Your task to perform on an android device: Search for sushi restaurants on Maps Image 0: 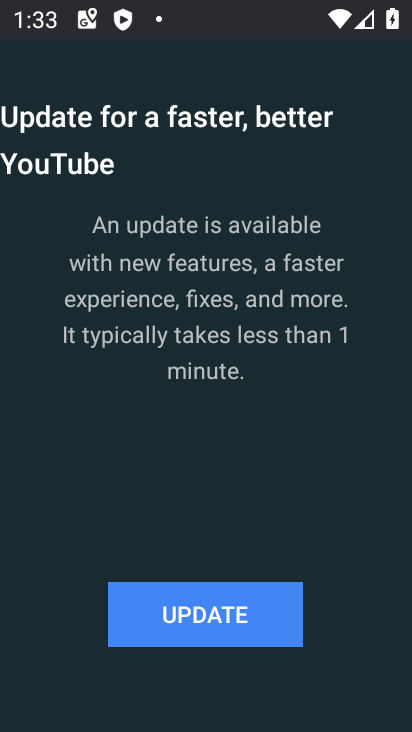
Step 0: press back button
Your task to perform on an android device: Search for sushi restaurants on Maps Image 1: 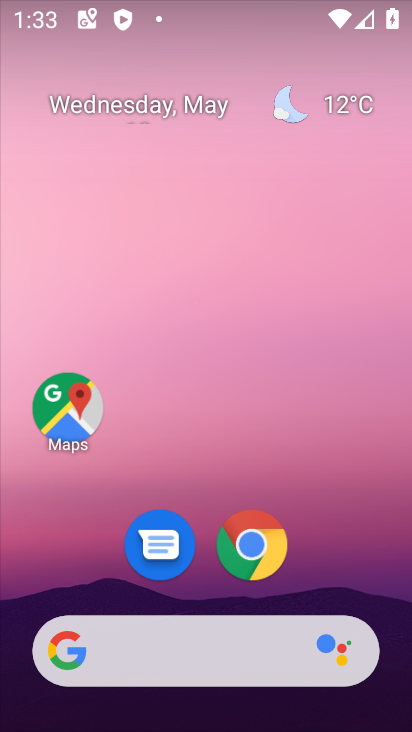
Step 1: click (87, 431)
Your task to perform on an android device: Search for sushi restaurants on Maps Image 2: 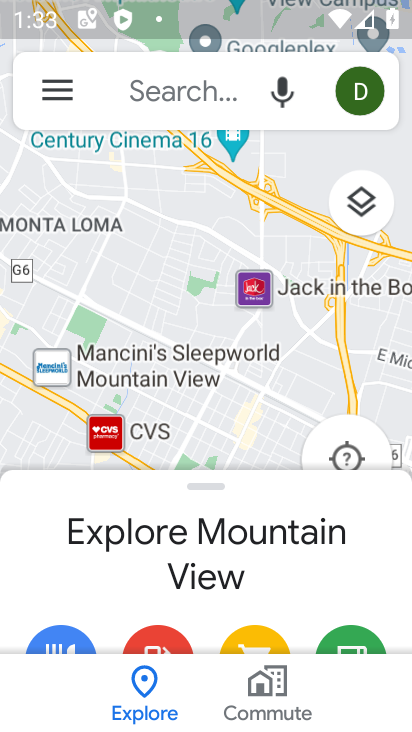
Step 2: click (167, 95)
Your task to perform on an android device: Search for sushi restaurants on Maps Image 3: 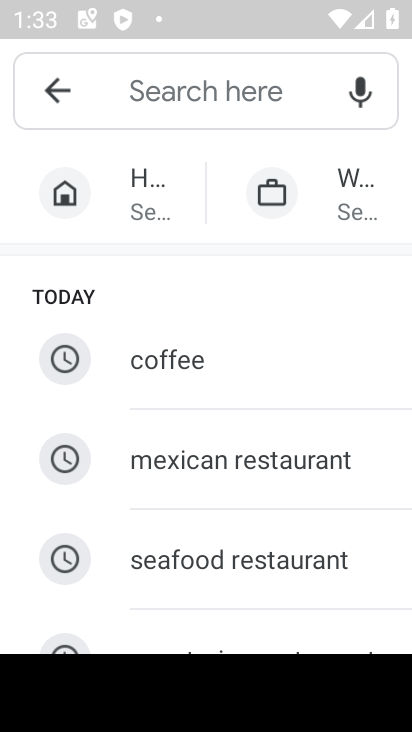
Step 3: drag from (190, 318) to (194, 196)
Your task to perform on an android device: Search for sushi restaurants on Maps Image 4: 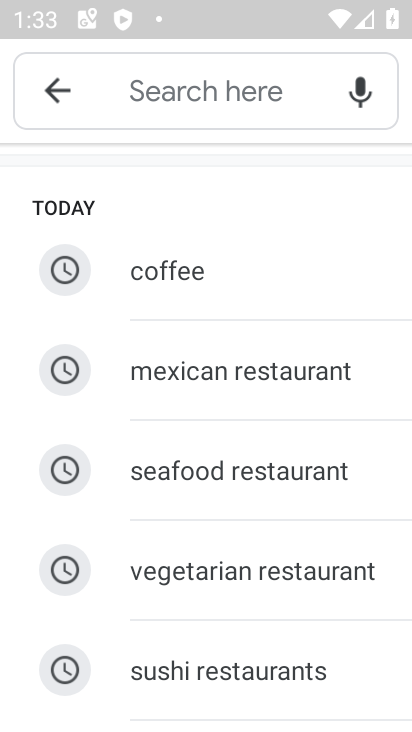
Step 4: click (152, 651)
Your task to perform on an android device: Search for sushi restaurants on Maps Image 5: 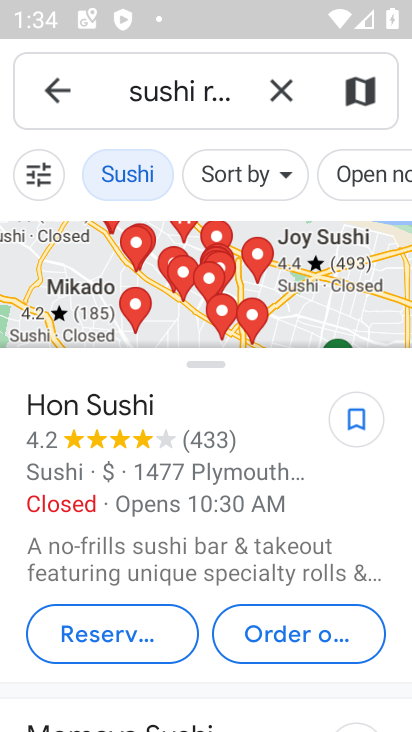
Step 5: task complete